Your task to perform on an android device: What is the news today? Image 0: 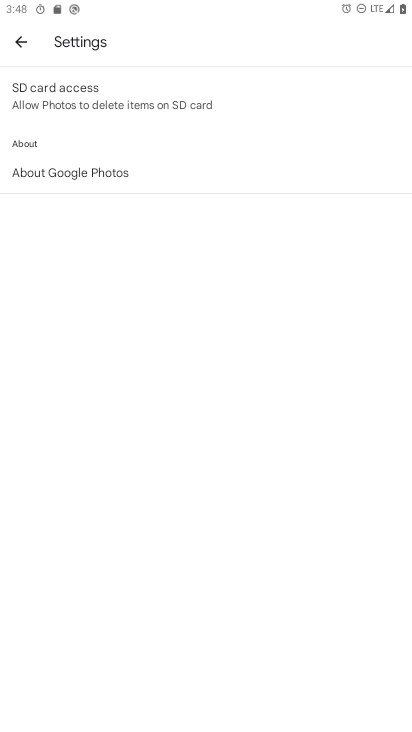
Step 0: press home button
Your task to perform on an android device: What is the news today? Image 1: 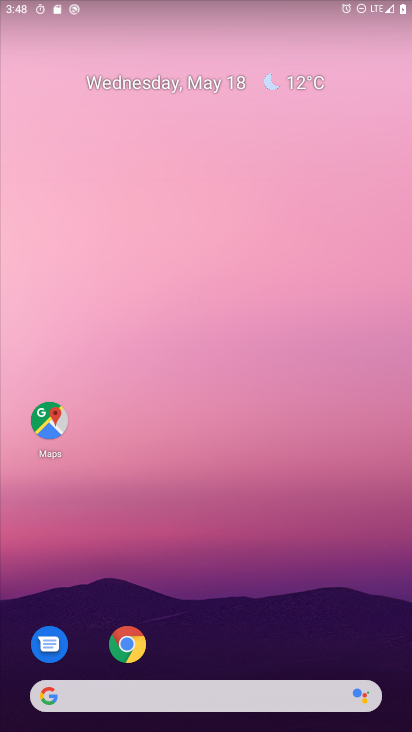
Step 1: drag from (397, 672) to (359, 131)
Your task to perform on an android device: What is the news today? Image 2: 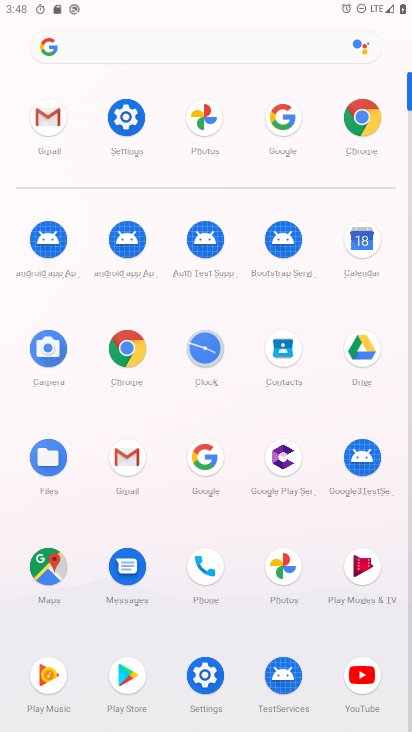
Step 2: click (207, 455)
Your task to perform on an android device: What is the news today? Image 3: 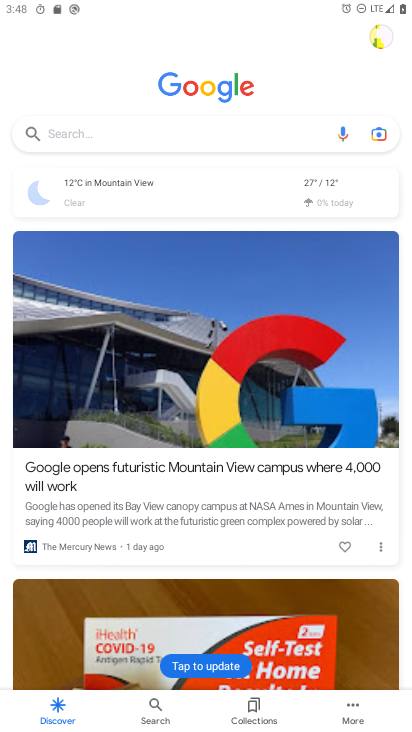
Step 3: task complete